Your task to perform on an android device: allow notifications from all sites in the chrome app Image 0: 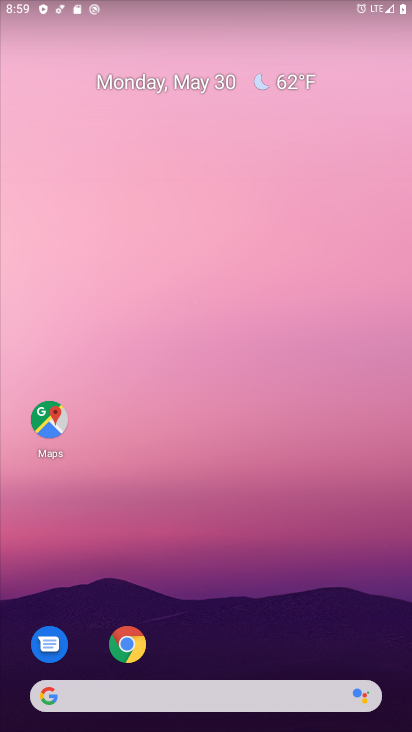
Step 0: click (125, 647)
Your task to perform on an android device: allow notifications from all sites in the chrome app Image 1: 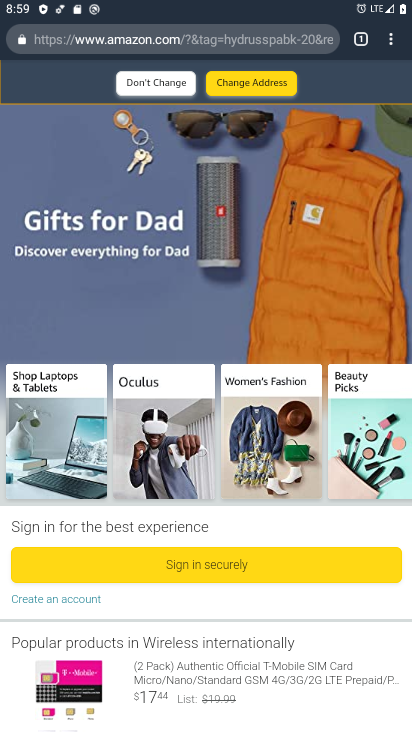
Step 1: click (393, 42)
Your task to perform on an android device: allow notifications from all sites in the chrome app Image 2: 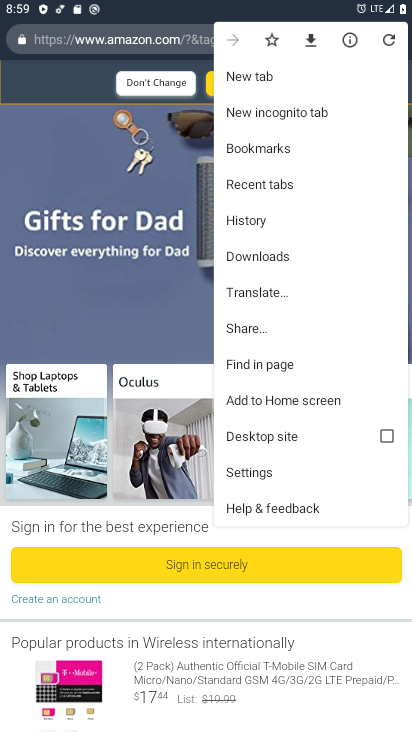
Step 2: click (257, 472)
Your task to perform on an android device: allow notifications from all sites in the chrome app Image 3: 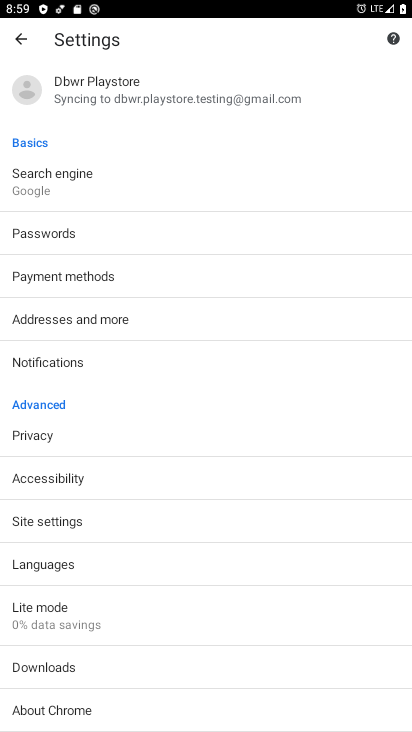
Step 3: click (56, 527)
Your task to perform on an android device: allow notifications from all sites in the chrome app Image 4: 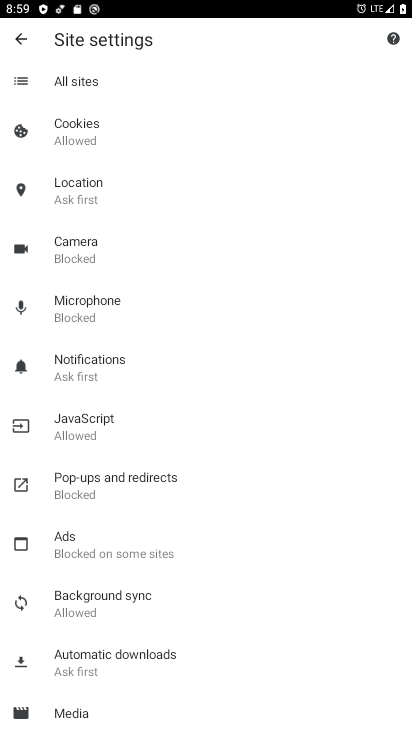
Step 4: click (81, 366)
Your task to perform on an android device: allow notifications from all sites in the chrome app Image 5: 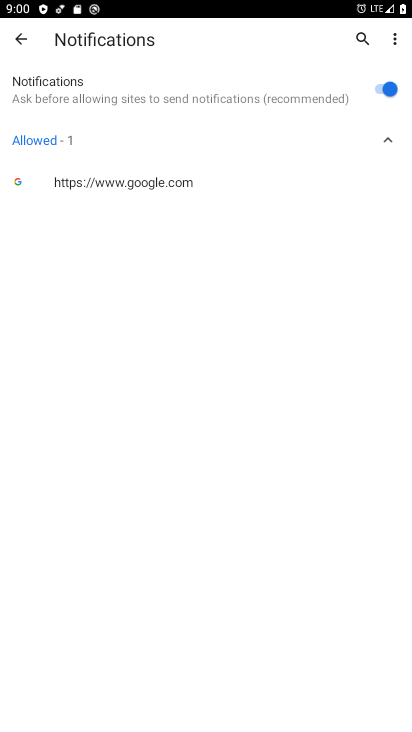
Step 5: task complete